Your task to perform on an android device: turn on data saver in the chrome app Image 0: 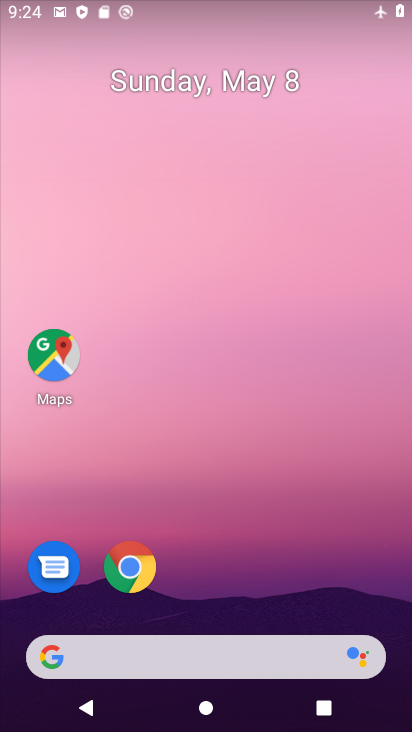
Step 0: click (129, 570)
Your task to perform on an android device: turn on data saver in the chrome app Image 1: 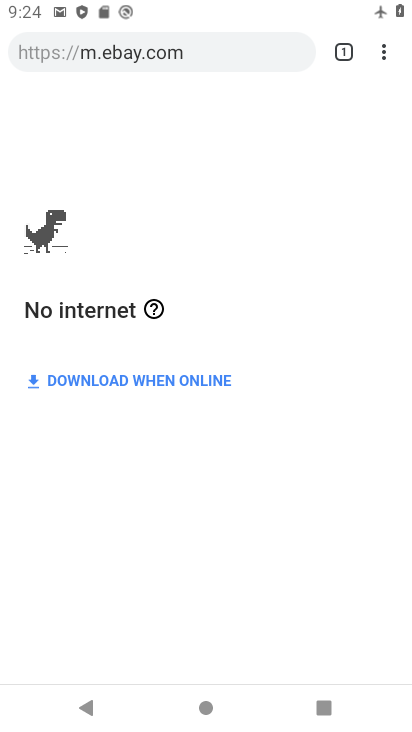
Step 1: click (383, 52)
Your task to perform on an android device: turn on data saver in the chrome app Image 2: 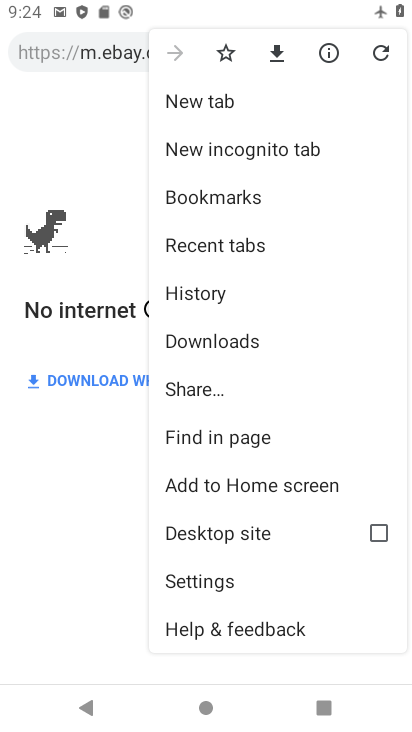
Step 2: click (214, 569)
Your task to perform on an android device: turn on data saver in the chrome app Image 3: 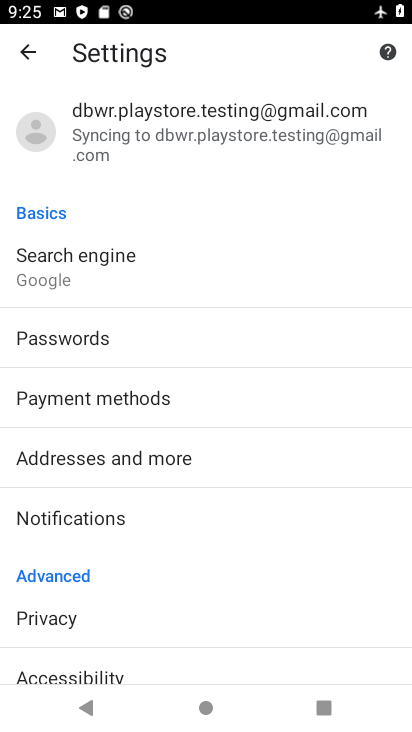
Step 3: drag from (147, 634) to (141, 299)
Your task to perform on an android device: turn on data saver in the chrome app Image 4: 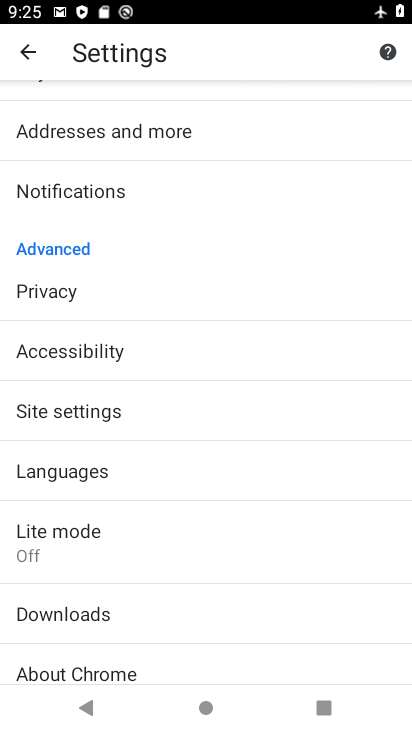
Step 4: click (88, 535)
Your task to perform on an android device: turn on data saver in the chrome app Image 5: 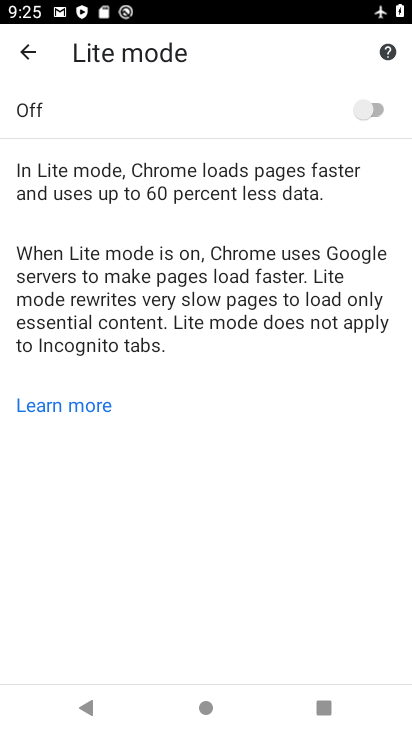
Step 5: click (376, 106)
Your task to perform on an android device: turn on data saver in the chrome app Image 6: 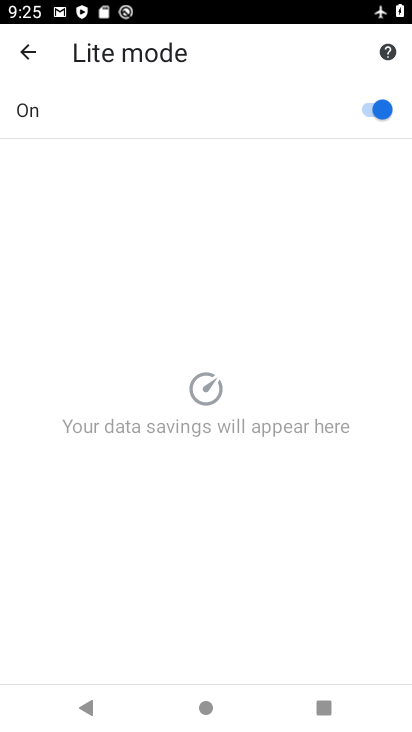
Step 6: task complete